Your task to perform on an android device: add a label to a message in the gmail app Image 0: 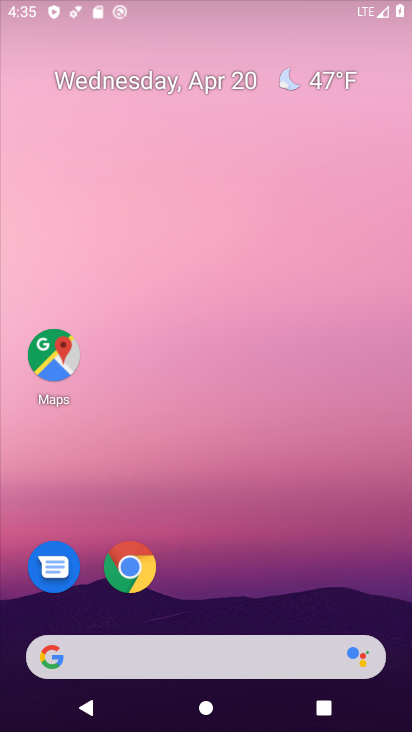
Step 0: drag from (240, 405) to (217, 67)
Your task to perform on an android device: add a label to a message in the gmail app Image 1: 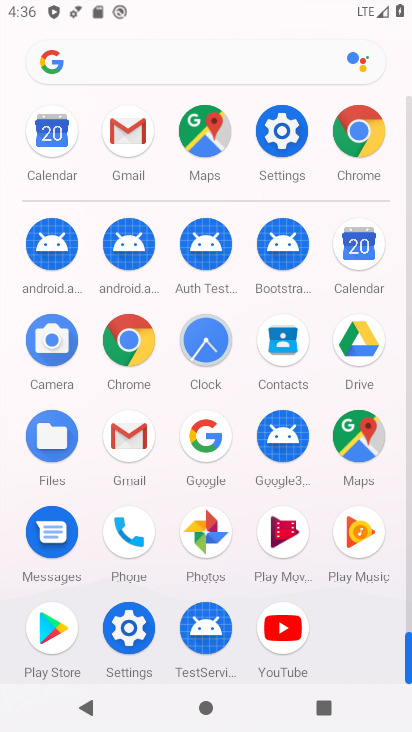
Step 1: click (130, 431)
Your task to perform on an android device: add a label to a message in the gmail app Image 2: 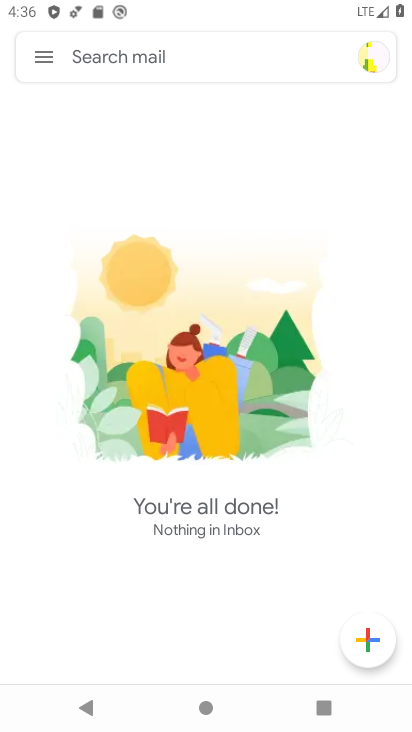
Step 2: click (38, 42)
Your task to perform on an android device: add a label to a message in the gmail app Image 3: 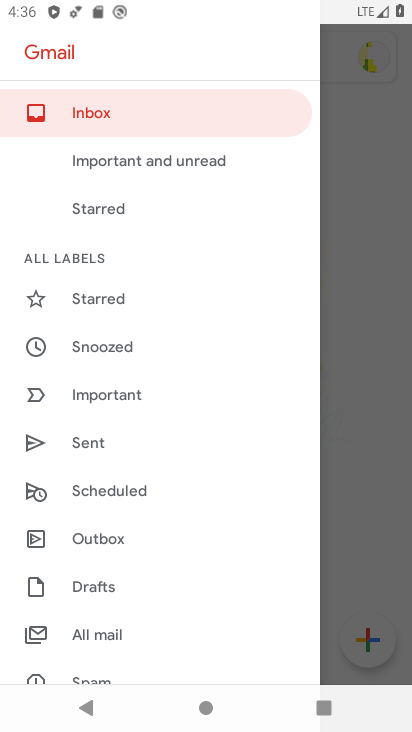
Step 3: drag from (204, 210) to (149, 545)
Your task to perform on an android device: add a label to a message in the gmail app Image 4: 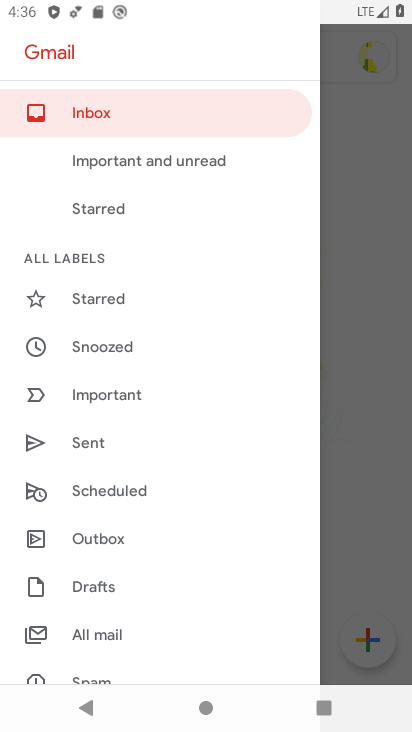
Step 4: drag from (175, 551) to (146, 182)
Your task to perform on an android device: add a label to a message in the gmail app Image 5: 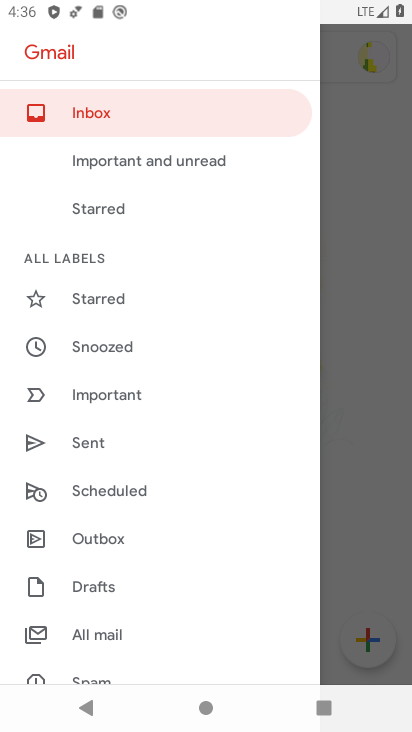
Step 5: click (116, 628)
Your task to perform on an android device: add a label to a message in the gmail app Image 6: 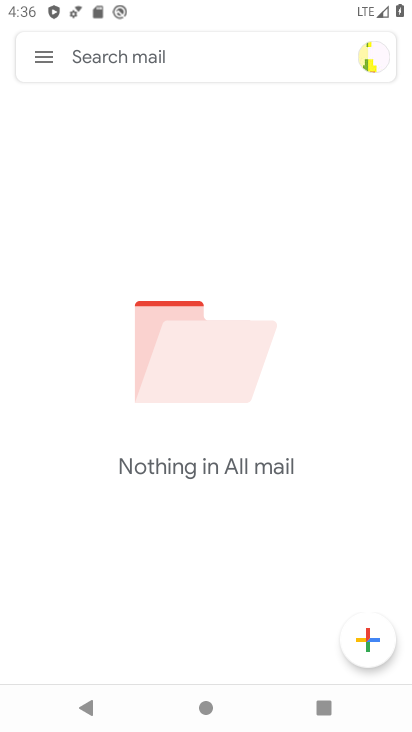
Step 6: task complete